Your task to perform on an android device: Open location settings Image 0: 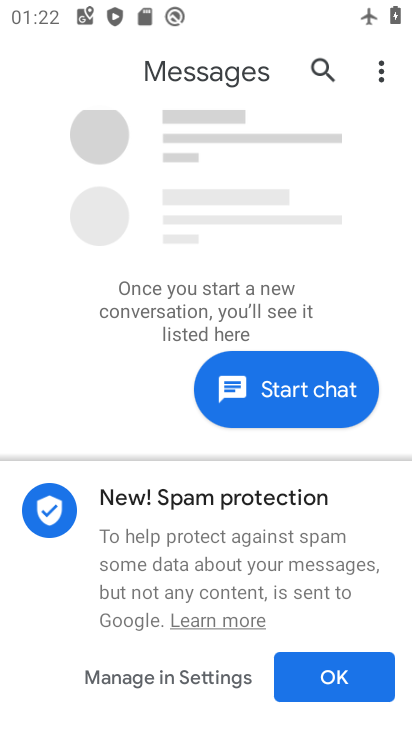
Step 0: press home button
Your task to perform on an android device: Open location settings Image 1: 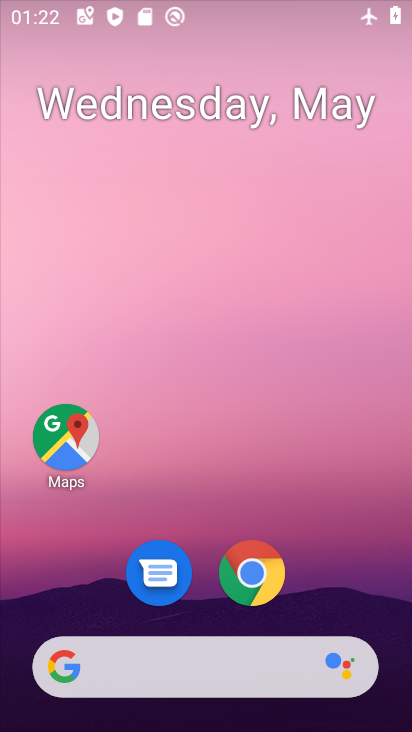
Step 1: drag from (252, 559) to (272, 114)
Your task to perform on an android device: Open location settings Image 2: 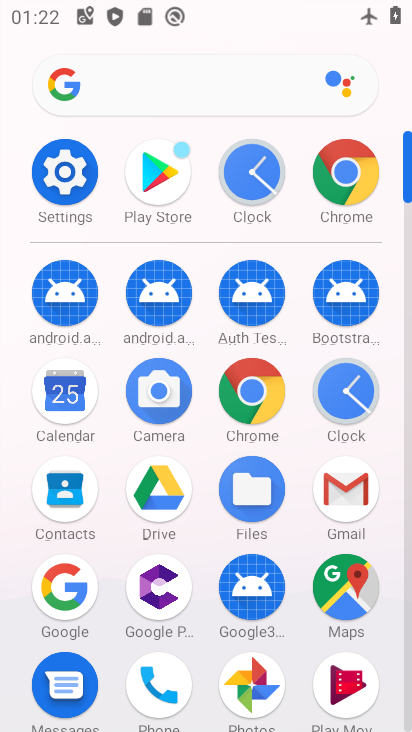
Step 2: click (68, 175)
Your task to perform on an android device: Open location settings Image 3: 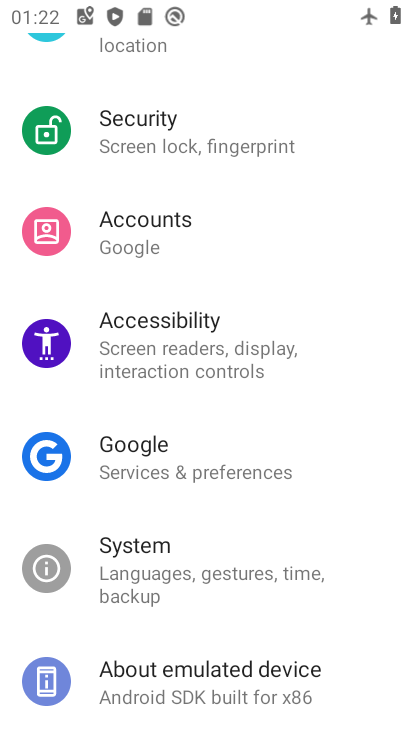
Step 3: drag from (217, 200) to (276, 490)
Your task to perform on an android device: Open location settings Image 4: 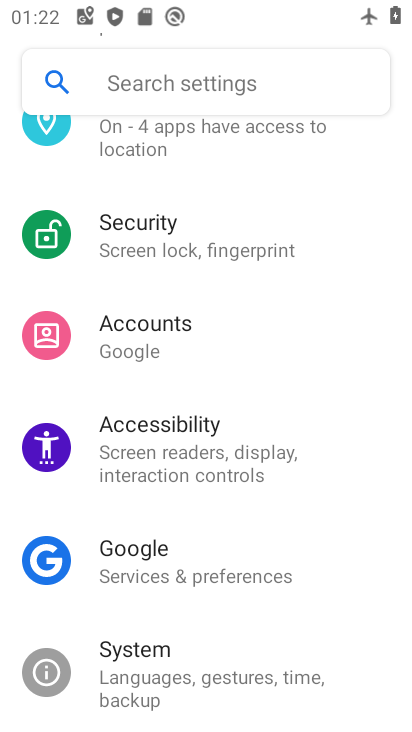
Step 4: drag from (186, 155) to (253, 553)
Your task to perform on an android device: Open location settings Image 5: 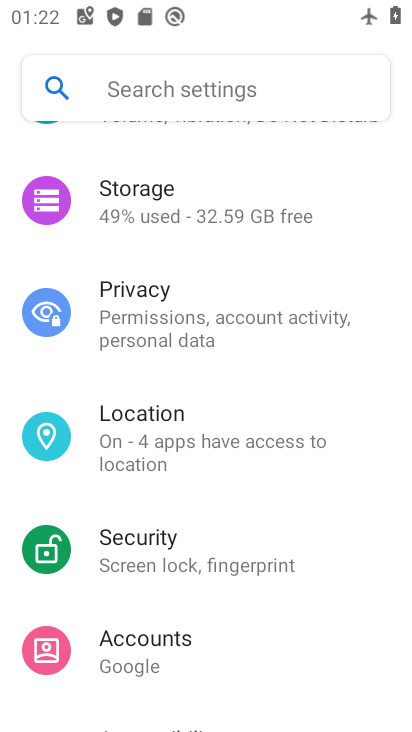
Step 5: click (190, 362)
Your task to perform on an android device: Open location settings Image 6: 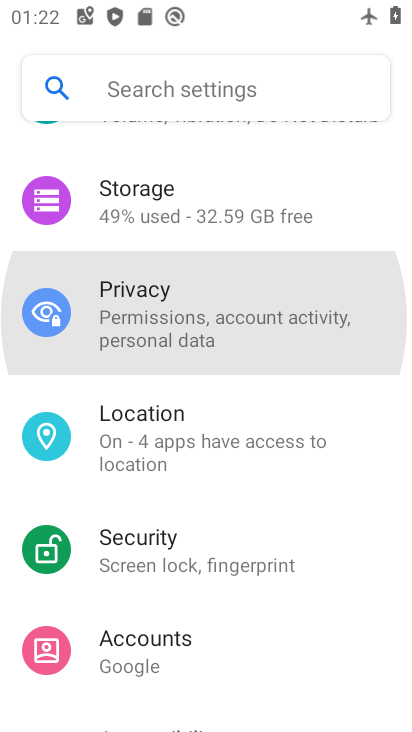
Step 6: click (191, 441)
Your task to perform on an android device: Open location settings Image 7: 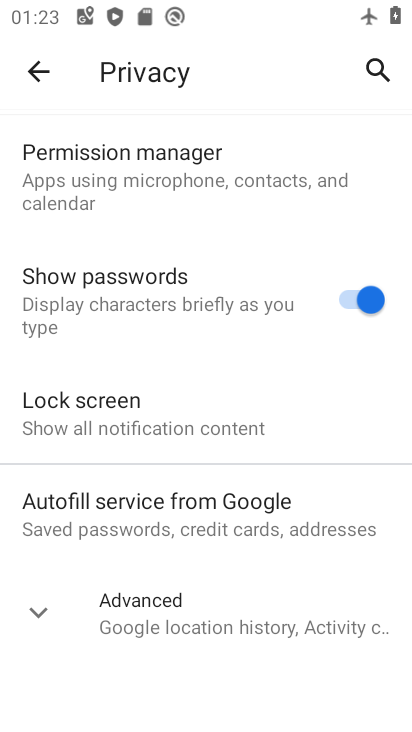
Step 7: click (52, 67)
Your task to perform on an android device: Open location settings Image 8: 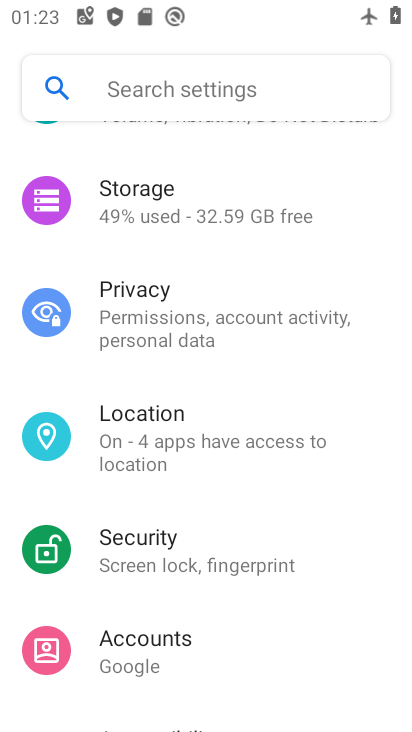
Step 8: click (200, 441)
Your task to perform on an android device: Open location settings Image 9: 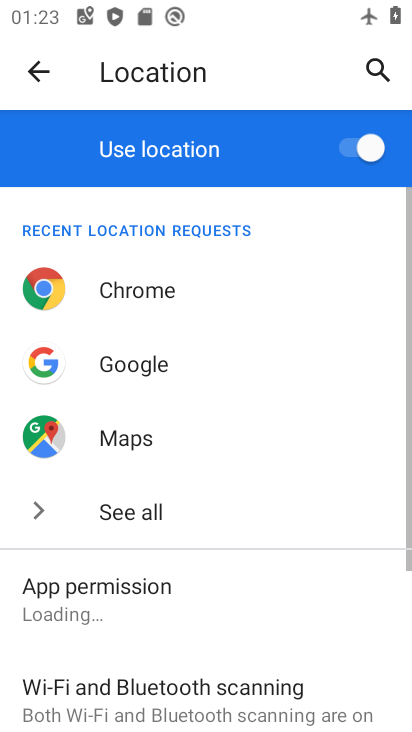
Step 9: task complete